Your task to perform on an android device: add a contact Image 0: 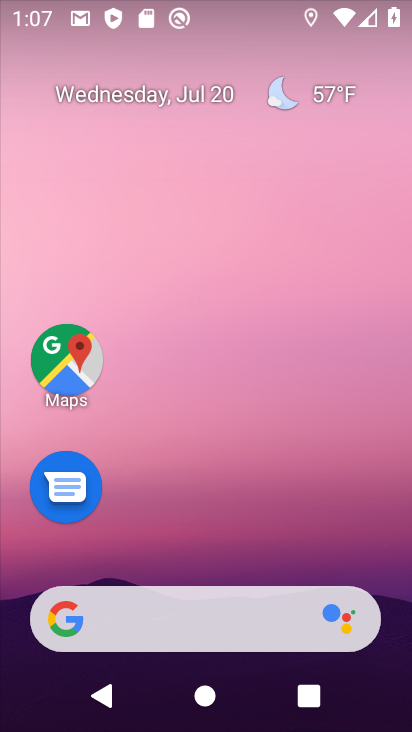
Step 0: drag from (152, 483) to (238, 1)
Your task to perform on an android device: add a contact Image 1: 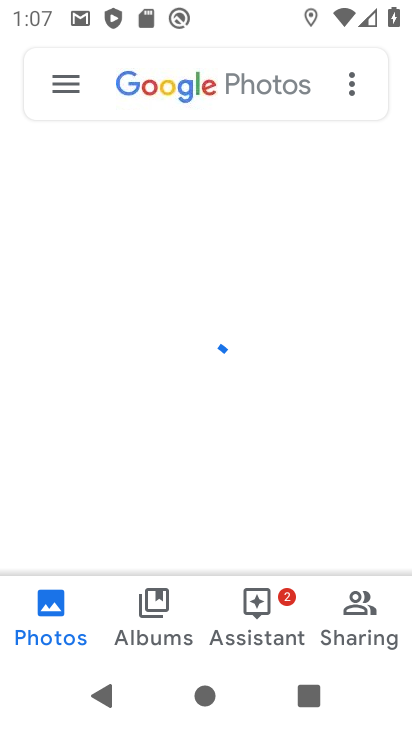
Step 1: press back button
Your task to perform on an android device: add a contact Image 2: 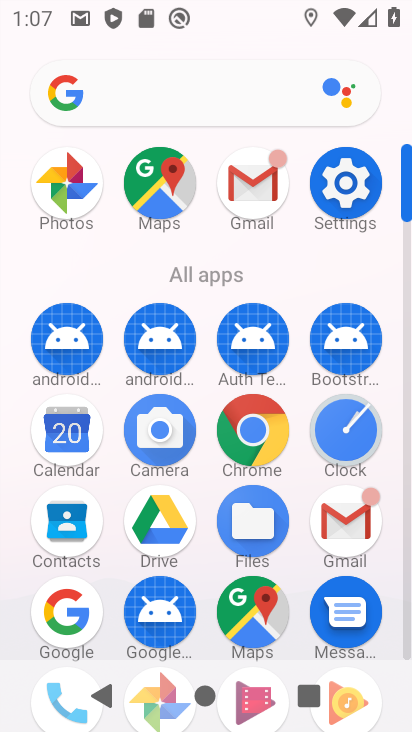
Step 2: click (45, 531)
Your task to perform on an android device: add a contact Image 3: 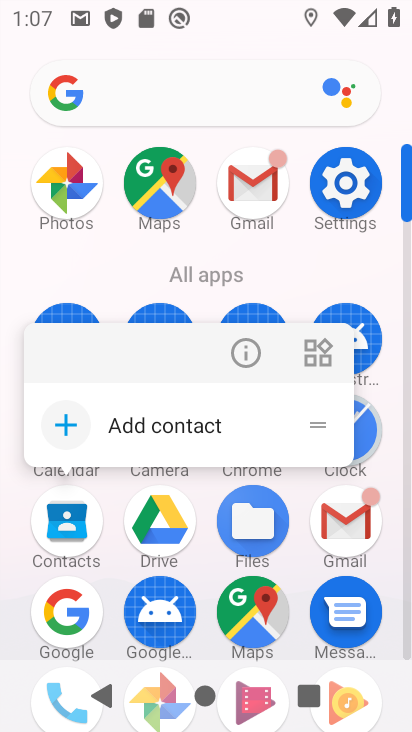
Step 3: click (70, 528)
Your task to perform on an android device: add a contact Image 4: 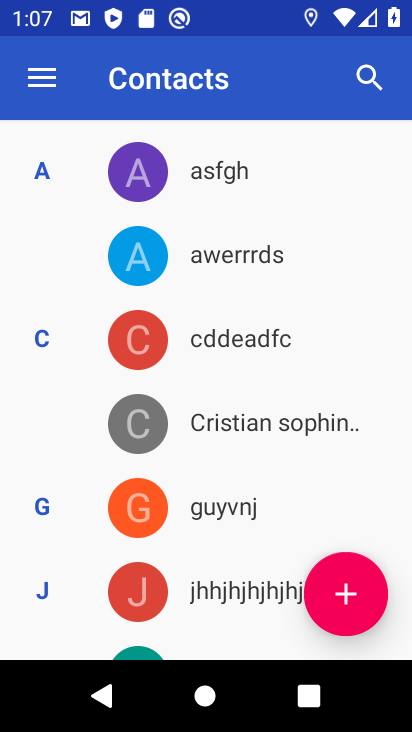
Step 4: click (338, 594)
Your task to perform on an android device: add a contact Image 5: 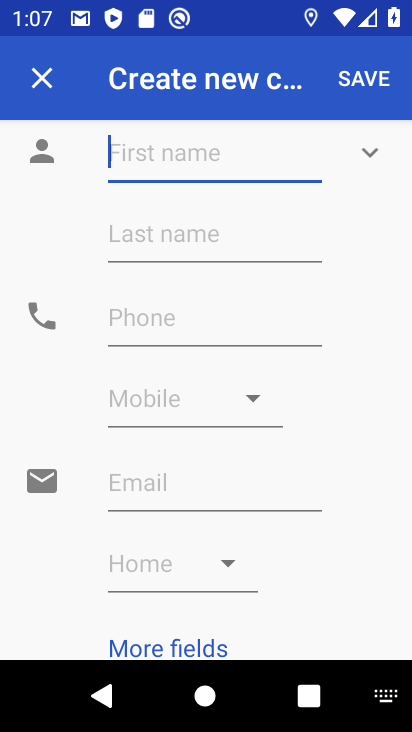
Step 5: click (154, 157)
Your task to perform on an android device: add a contact Image 6: 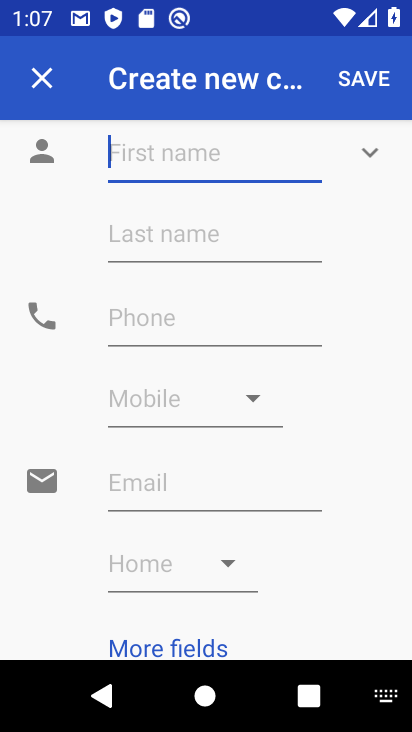
Step 6: type "ghgh"
Your task to perform on an android device: add a contact Image 7: 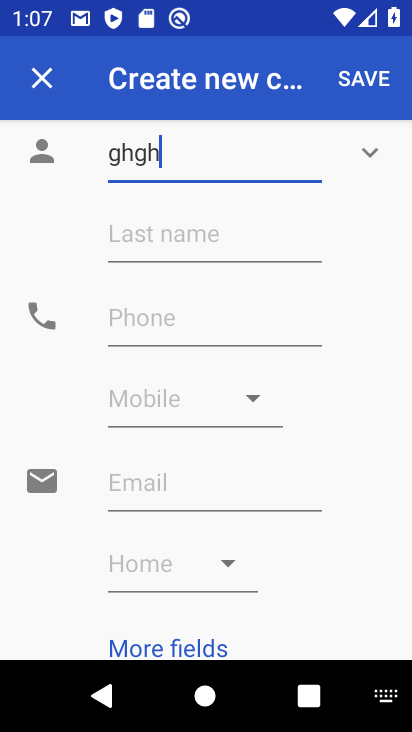
Step 7: click (145, 316)
Your task to perform on an android device: add a contact Image 8: 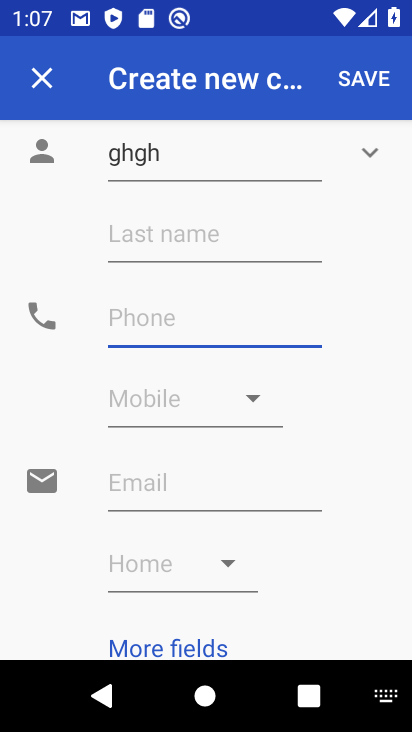
Step 8: type "78787"
Your task to perform on an android device: add a contact Image 9: 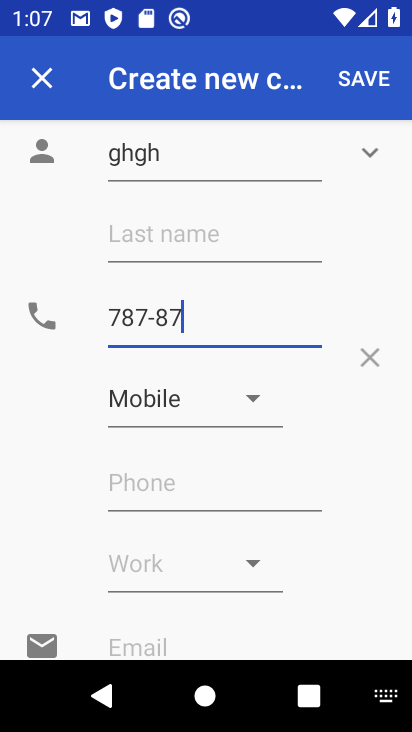
Step 9: click (342, 84)
Your task to perform on an android device: add a contact Image 10: 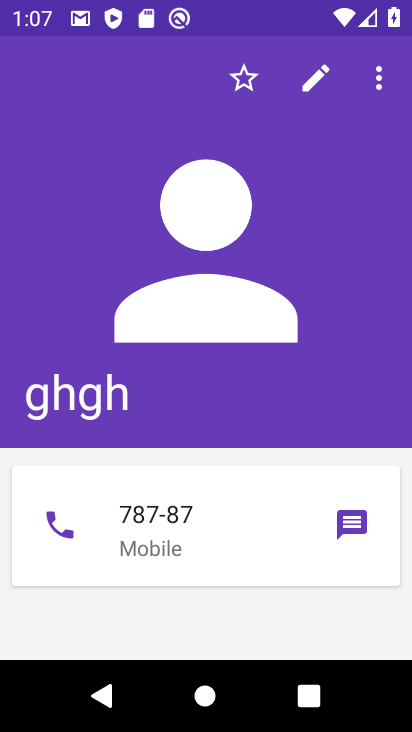
Step 10: task complete